Your task to perform on an android device: Is it going to rain this weekend? Image 0: 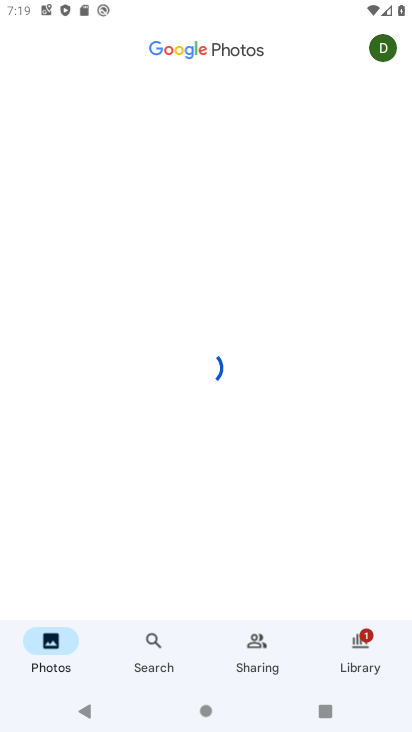
Step 0: press home button
Your task to perform on an android device: Is it going to rain this weekend? Image 1: 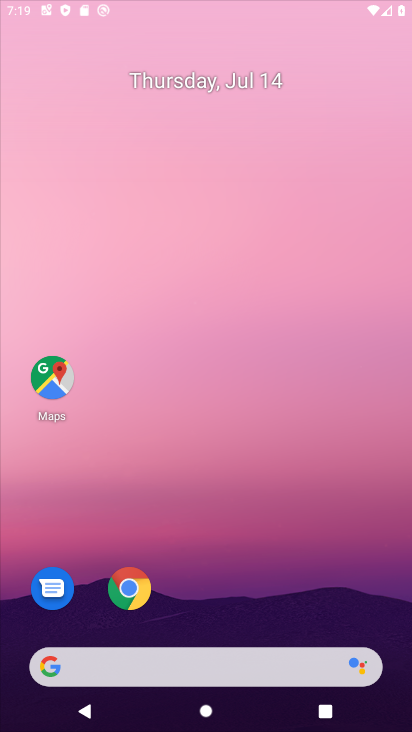
Step 1: drag from (375, 653) to (330, 11)
Your task to perform on an android device: Is it going to rain this weekend? Image 2: 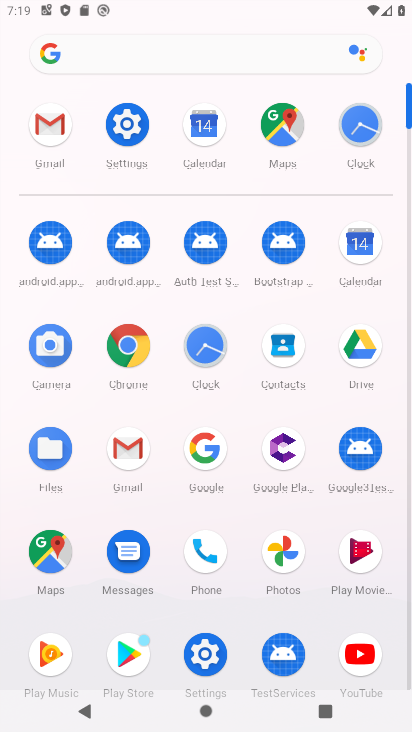
Step 2: click (199, 447)
Your task to perform on an android device: Is it going to rain this weekend? Image 3: 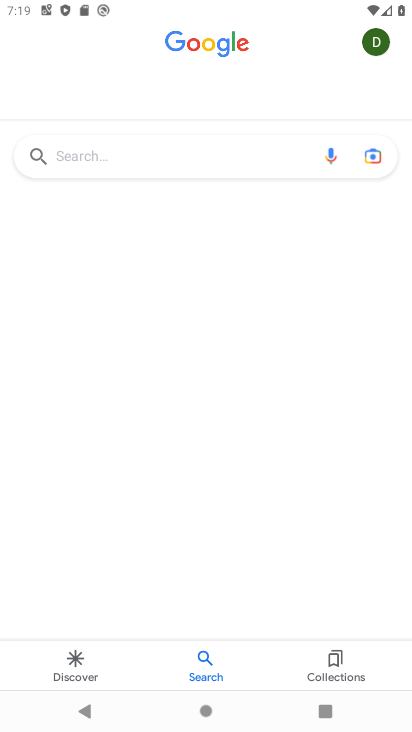
Step 3: click (141, 169)
Your task to perform on an android device: Is it going to rain this weekend? Image 4: 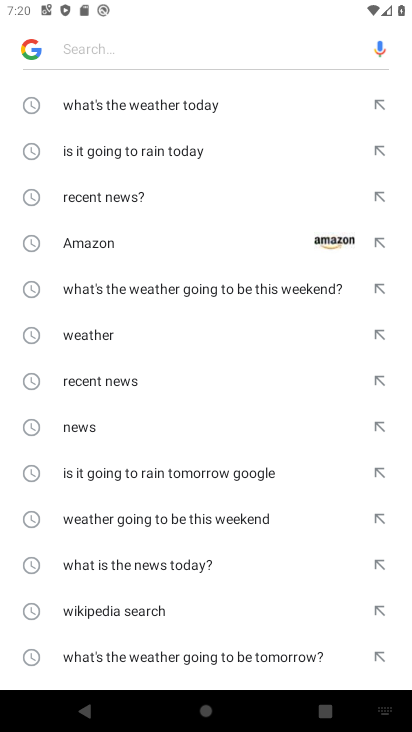
Step 4: drag from (151, 630) to (190, 215)
Your task to perform on an android device: Is it going to rain this weekend? Image 5: 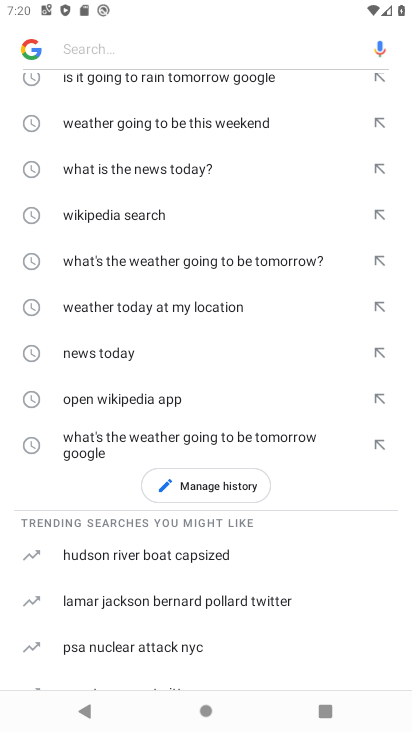
Step 5: drag from (176, 146) to (159, 694)
Your task to perform on an android device: Is it going to rain this weekend? Image 6: 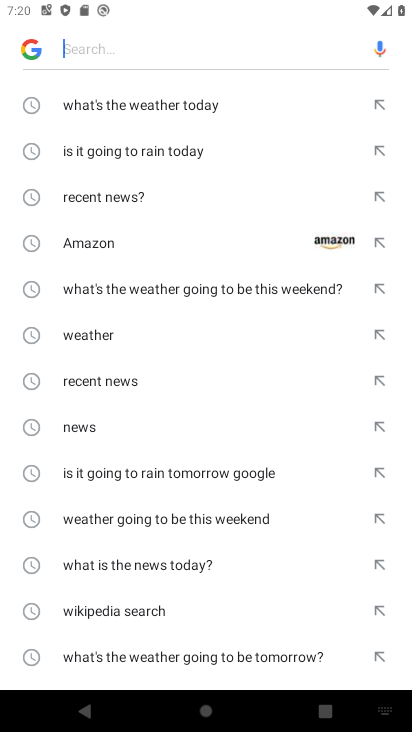
Step 6: type "Is it going to rain this weekend?"
Your task to perform on an android device: Is it going to rain this weekend? Image 7: 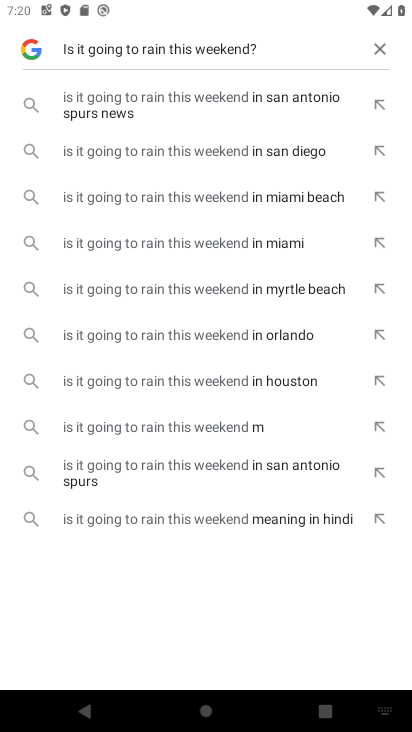
Step 7: click (94, 430)
Your task to perform on an android device: Is it going to rain this weekend? Image 8: 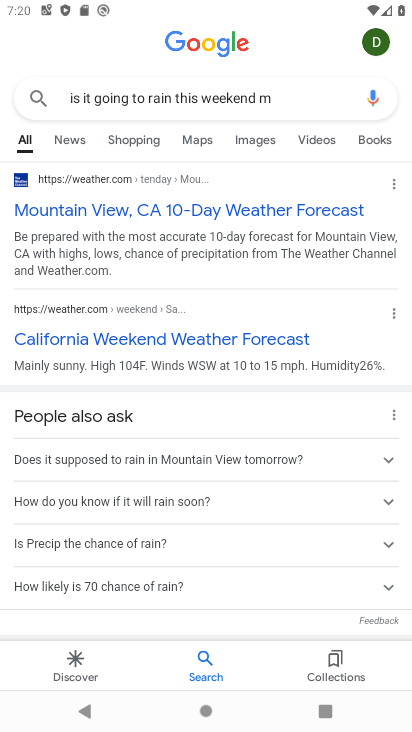
Step 8: task complete